Your task to perform on an android device: find snoozed emails in the gmail app Image 0: 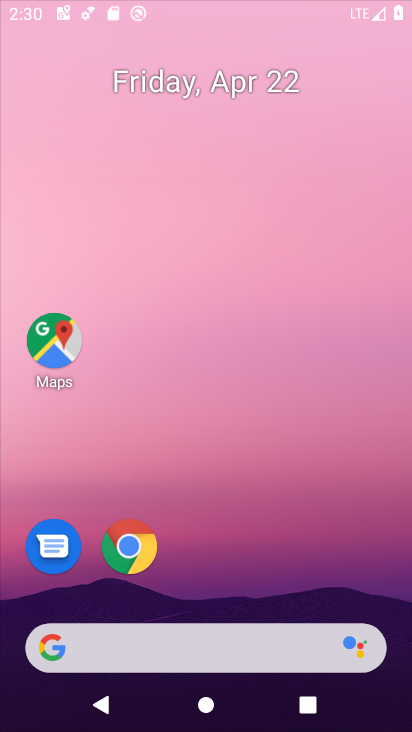
Step 0: drag from (236, 516) to (288, 160)
Your task to perform on an android device: find snoozed emails in the gmail app Image 1: 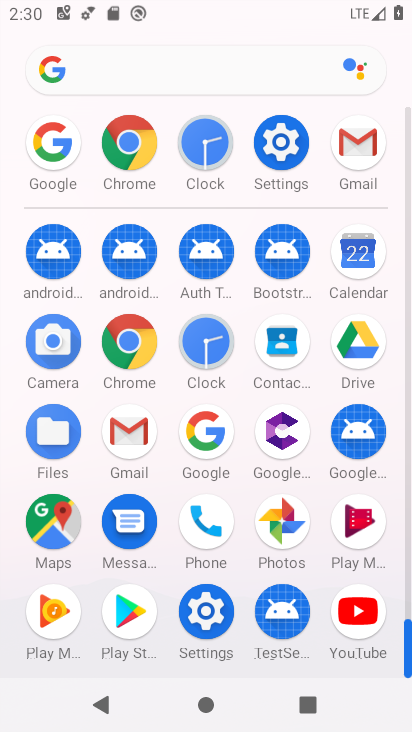
Step 1: click (135, 447)
Your task to perform on an android device: find snoozed emails in the gmail app Image 2: 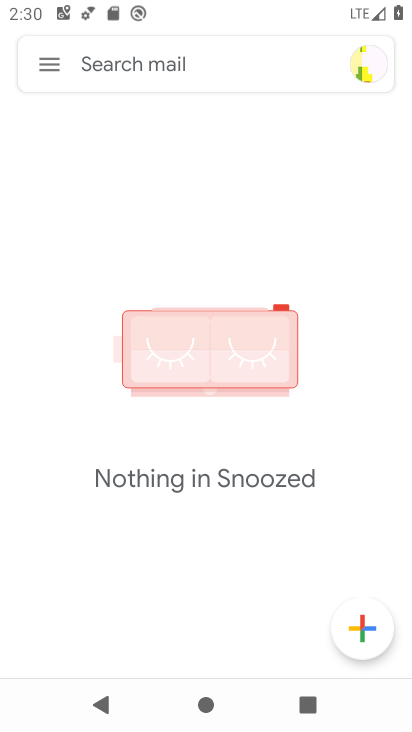
Step 2: task complete